Your task to perform on an android device: Open accessibility settings Image 0: 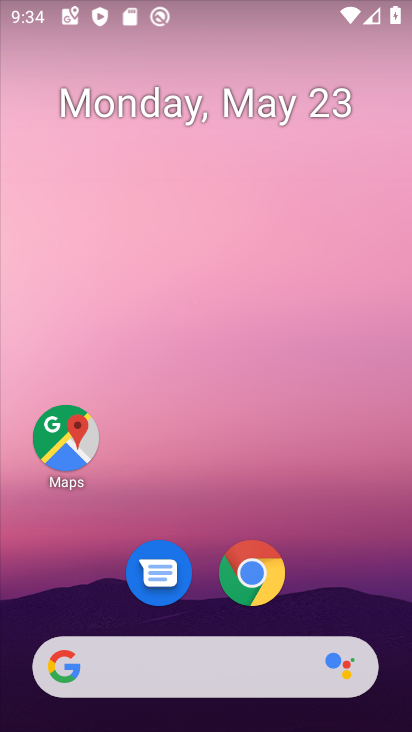
Step 0: drag from (386, 613) to (357, 237)
Your task to perform on an android device: Open accessibility settings Image 1: 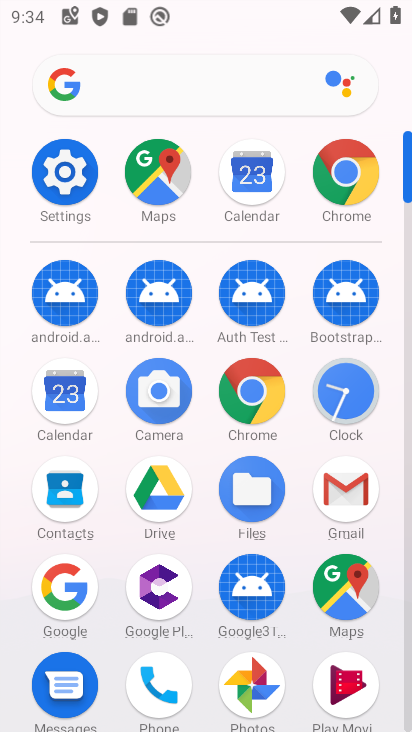
Step 1: click (58, 184)
Your task to perform on an android device: Open accessibility settings Image 2: 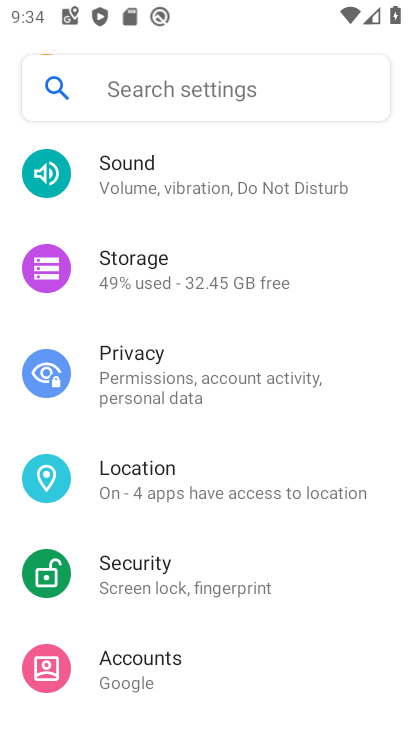
Step 2: drag from (366, 303) to (366, 433)
Your task to perform on an android device: Open accessibility settings Image 3: 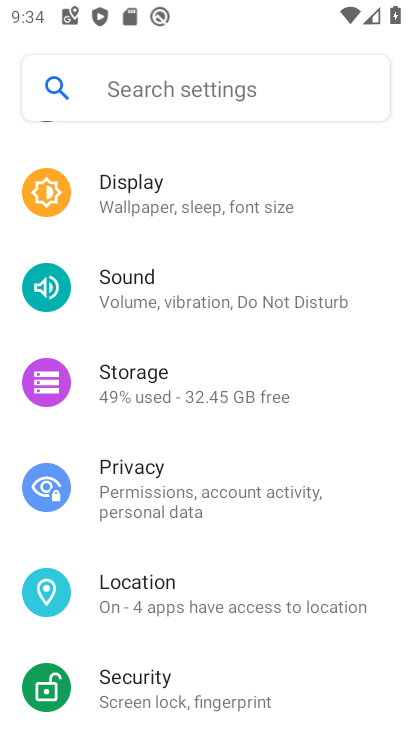
Step 3: drag from (371, 298) to (374, 445)
Your task to perform on an android device: Open accessibility settings Image 4: 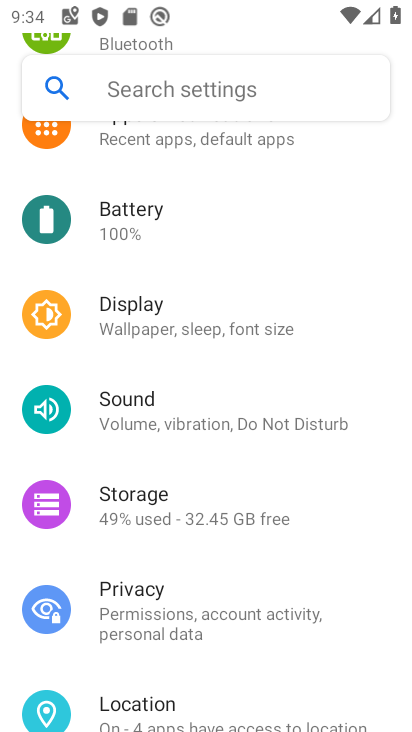
Step 4: drag from (367, 204) to (365, 389)
Your task to perform on an android device: Open accessibility settings Image 5: 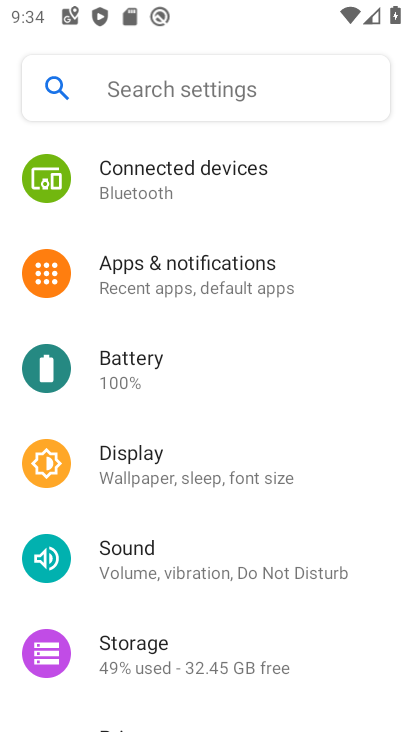
Step 5: drag from (348, 211) to (350, 372)
Your task to perform on an android device: Open accessibility settings Image 6: 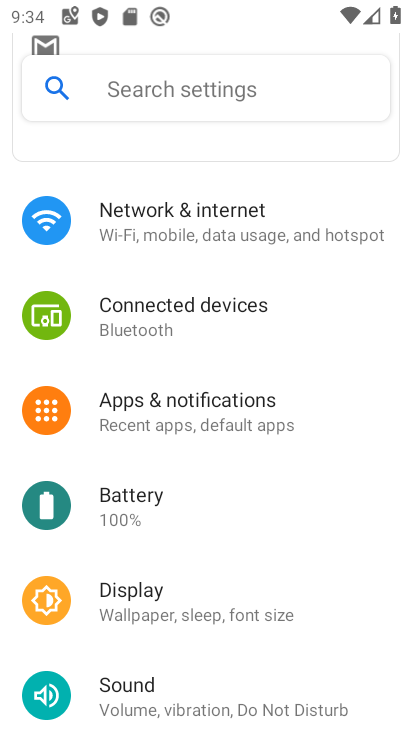
Step 6: drag from (346, 539) to (352, 394)
Your task to perform on an android device: Open accessibility settings Image 7: 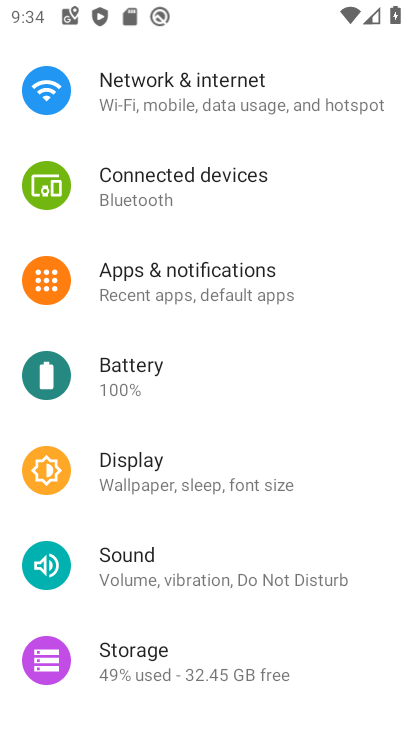
Step 7: drag from (359, 620) to (345, 443)
Your task to perform on an android device: Open accessibility settings Image 8: 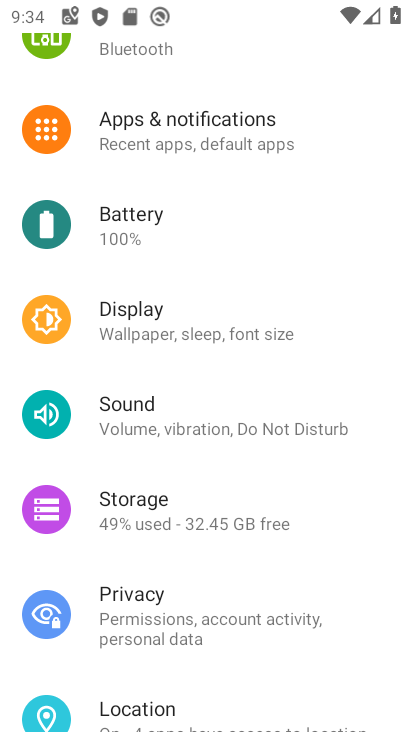
Step 8: drag from (364, 619) to (362, 497)
Your task to perform on an android device: Open accessibility settings Image 9: 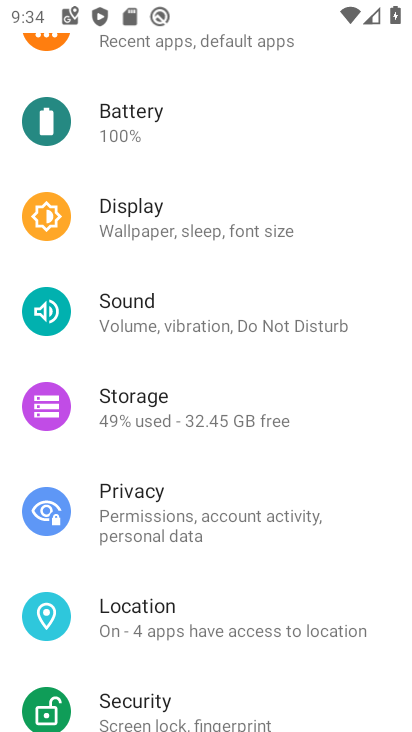
Step 9: drag from (364, 666) to (362, 518)
Your task to perform on an android device: Open accessibility settings Image 10: 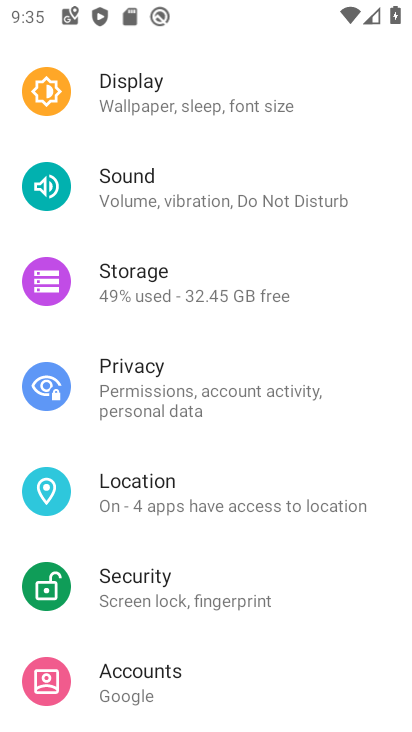
Step 10: drag from (367, 657) to (349, 522)
Your task to perform on an android device: Open accessibility settings Image 11: 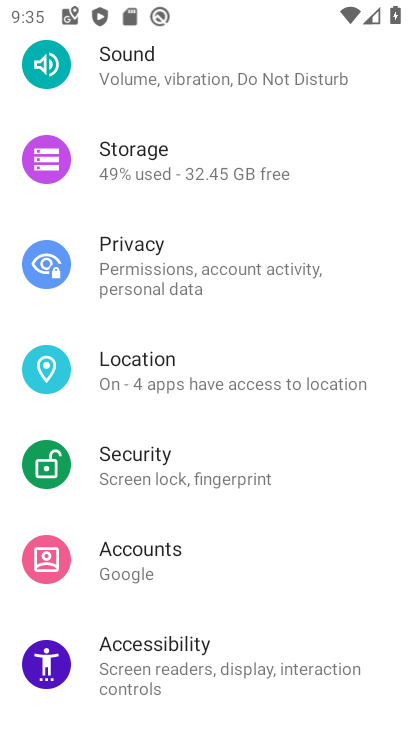
Step 11: drag from (369, 651) to (358, 510)
Your task to perform on an android device: Open accessibility settings Image 12: 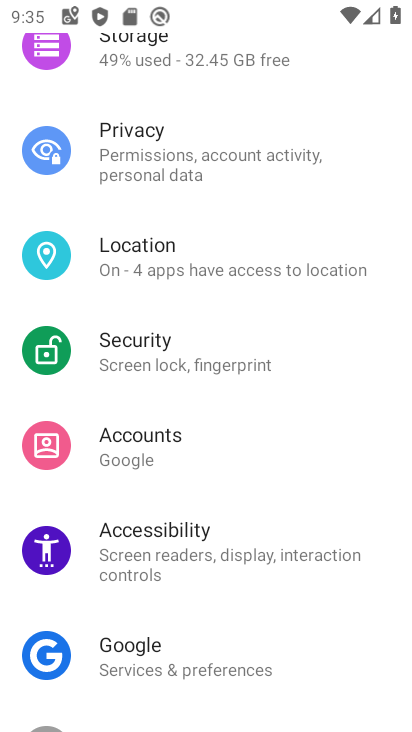
Step 12: drag from (359, 636) to (363, 500)
Your task to perform on an android device: Open accessibility settings Image 13: 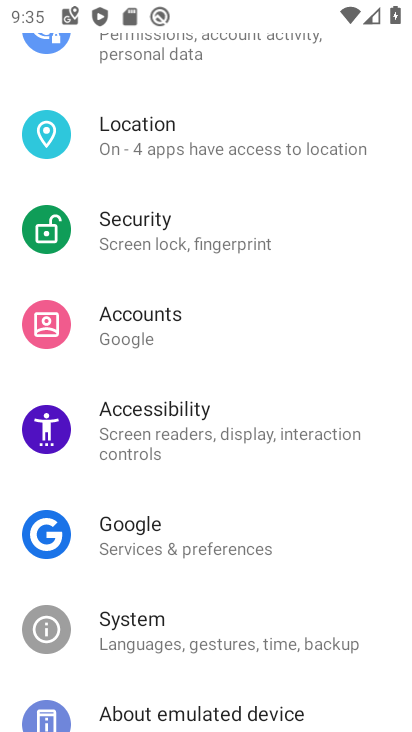
Step 13: click (278, 417)
Your task to perform on an android device: Open accessibility settings Image 14: 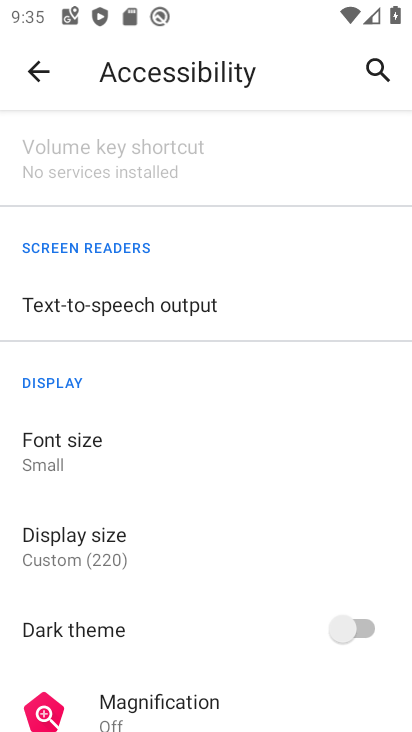
Step 14: task complete